Your task to perform on an android device: show emergency info Image 0: 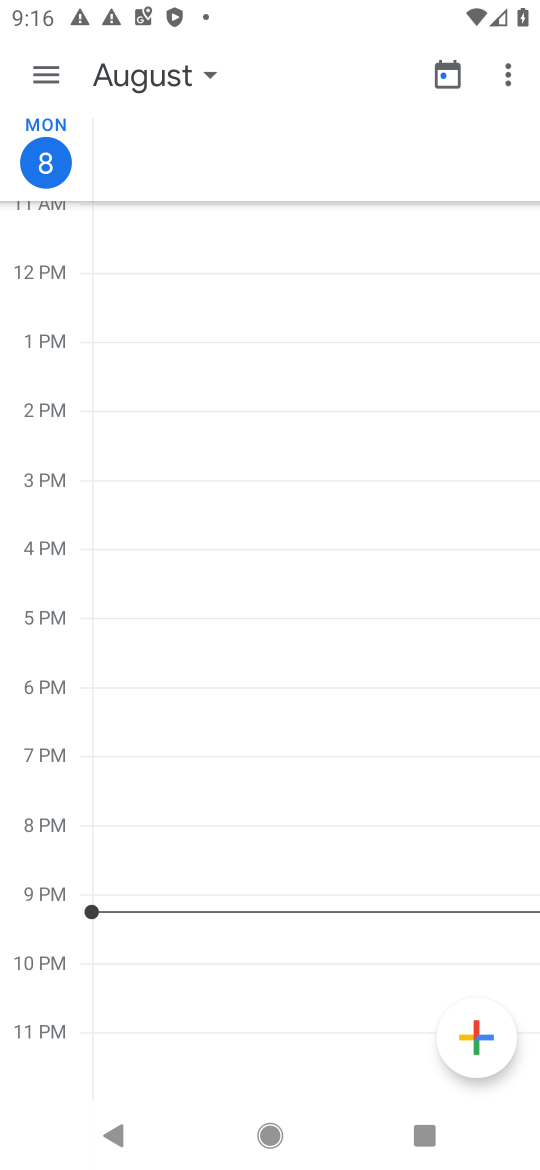
Step 0: press home button
Your task to perform on an android device: show emergency info Image 1: 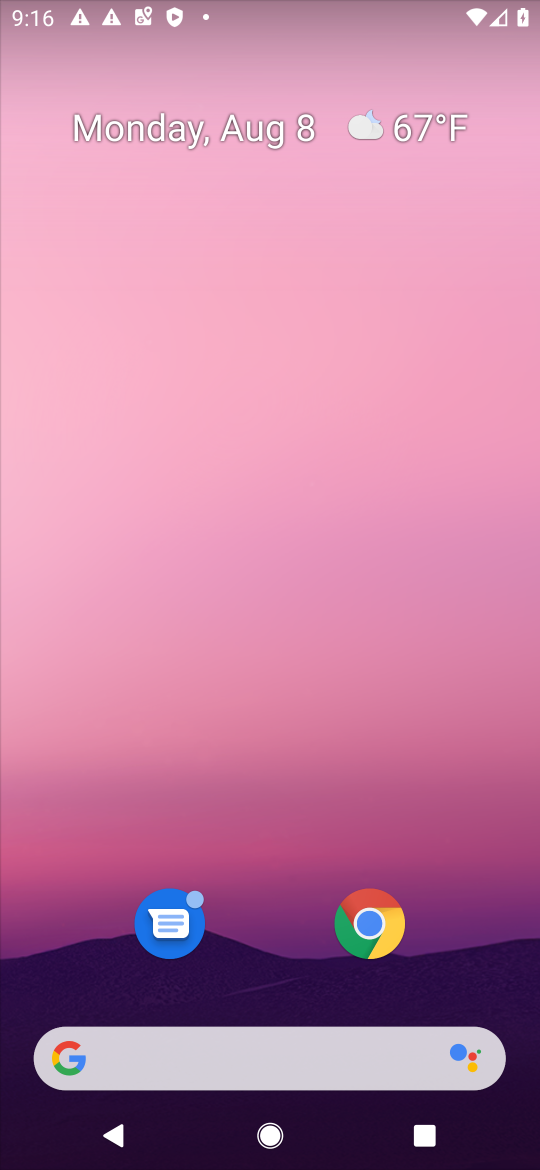
Step 1: task complete